Your task to perform on an android device: search for starred emails in the gmail app Image 0: 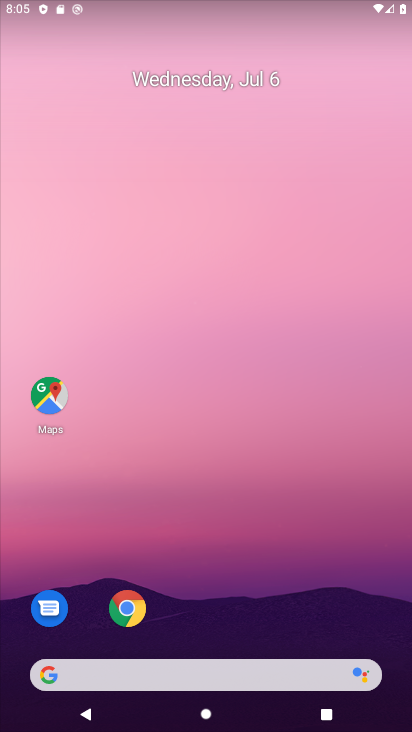
Step 0: drag from (402, 654) to (362, 121)
Your task to perform on an android device: search for starred emails in the gmail app Image 1: 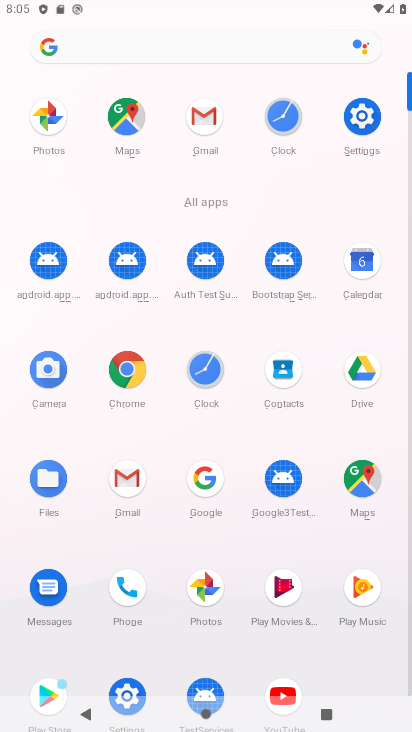
Step 1: click (135, 485)
Your task to perform on an android device: search for starred emails in the gmail app Image 2: 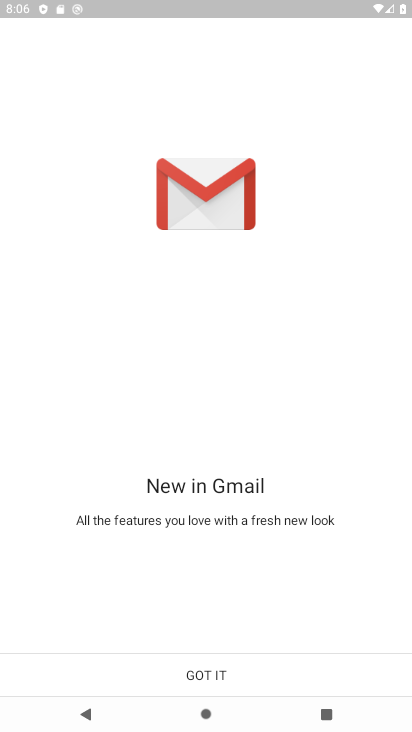
Step 2: click (224, 665)
Your task to perform on an android device: search for starred emails in the gmail app Image 3: 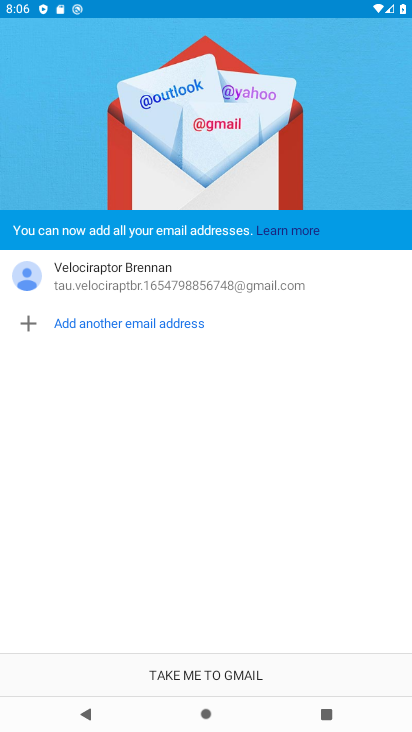
Step 3: click (224, 665)
Your task to perform on an android device: search for starred emails in the gmail app Image 4: 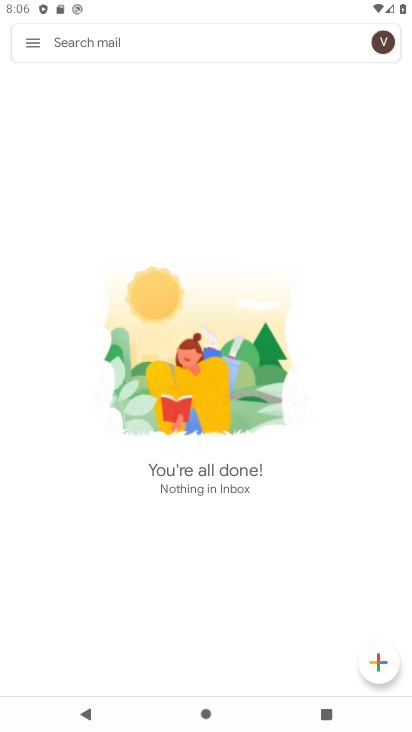
Step 4: click (33, 33)
Your task to perform on an android device: search for starred emails in the gmail app Image 5: 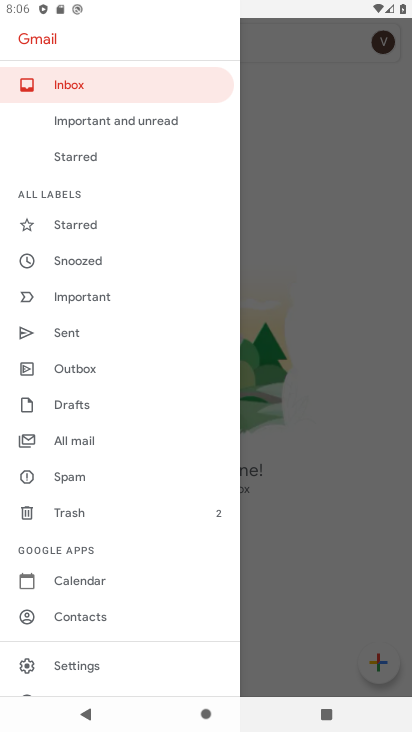
Step 5: click (88, 161)
Your task to perform on an android device: search for starred emails in the gmail app Image 6: 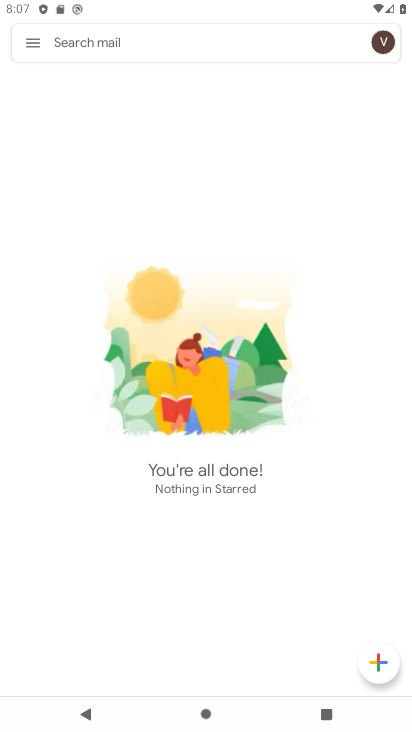
Step 6: task complete